Your task to perform on an android device: Search for Italian restaurants on Maps Image 0: 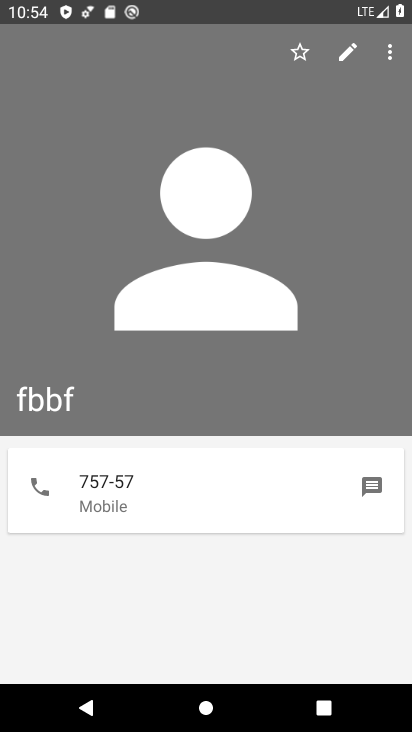
Step 0: press back button
Your task to perform on an android device: Search for Italian restaurants on Maps Image 1: 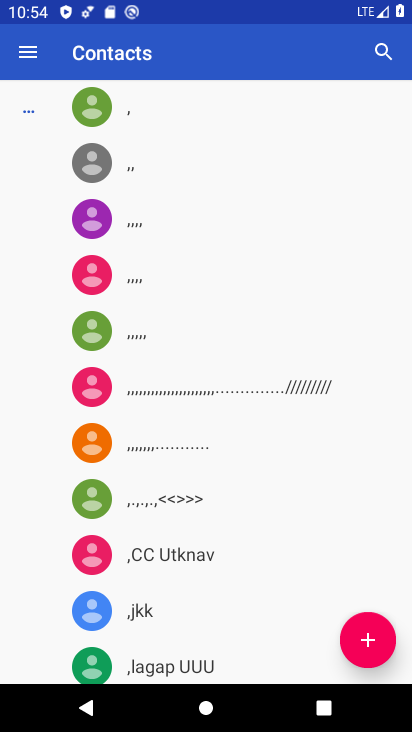
Step 1: press back button
Your task to perform on an android device: Search for Italian restaurants on Maps Image 2: 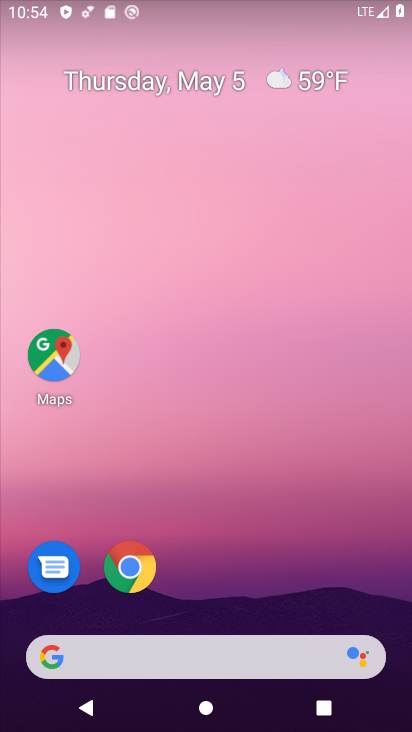
Step 2: click (53, 350)
Your task to perform on an android device: Search for Italian restaurants on Maps Image 3: 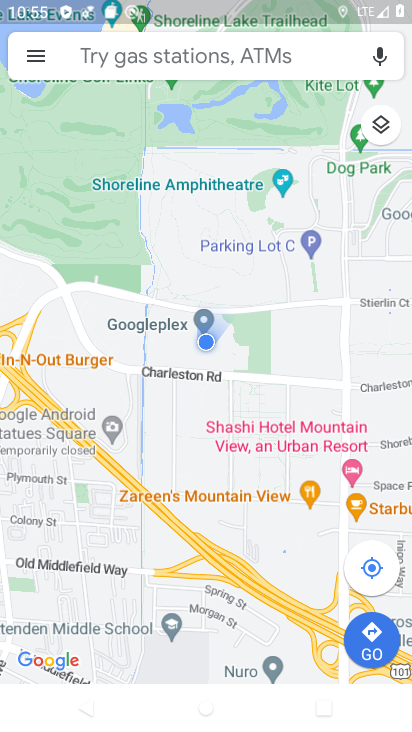
Step 3: click (159, 50)
Your task to perform on an android device: Search for Italian restaurants on Maps Image 4: 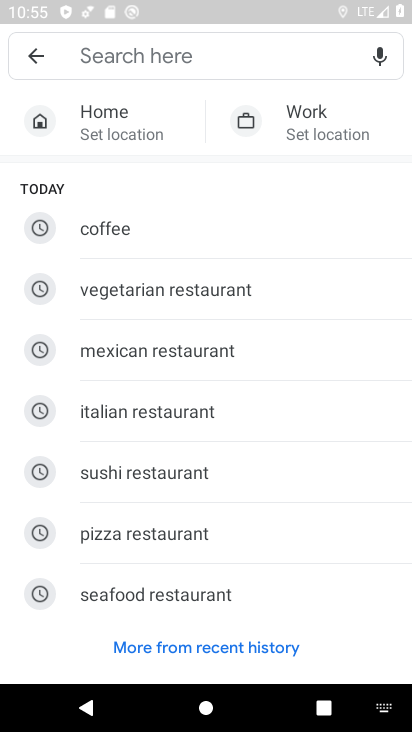
Step 4: type "italian"
Your task to perform on an android device: Search for Italian restaurants on Maps Image 5: 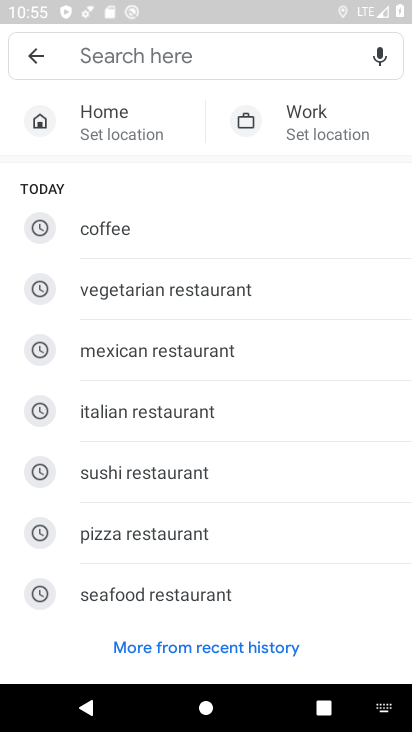
Step 5: click (162, 411)
Your task to perform on an android device: Search for Italian restaurants on Maps Image 6: 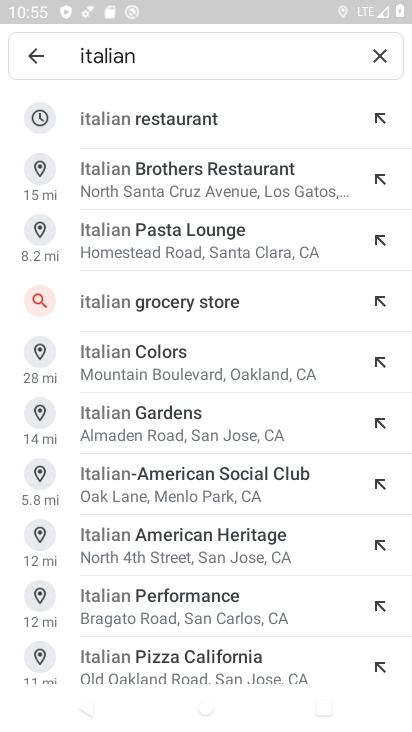
Step 6: click (173, 120)
Your task to perform on an android device: Search for Italian restaurants on Maps Image 7: 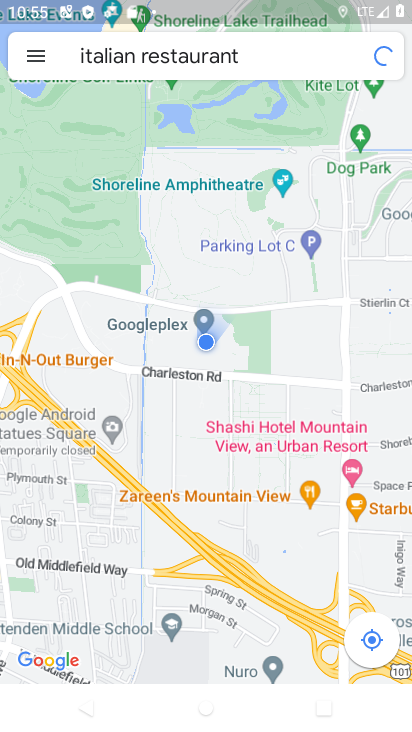
Step 7: task complete